Your task to perform on an android device: turn off data saver in the chrome app Image 0: 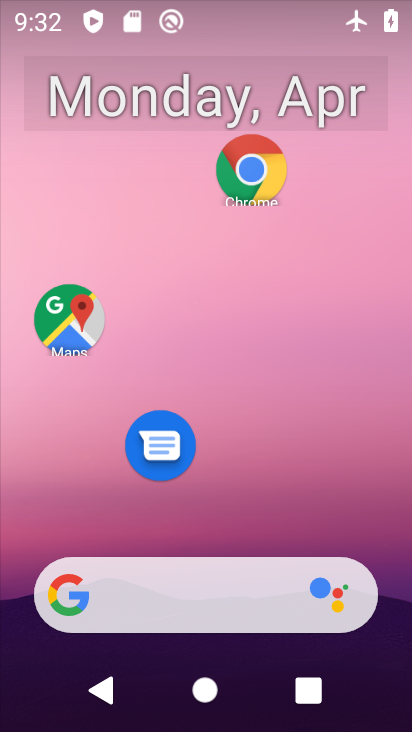
Step 0: click (241, 169)
Your task to perform on an android device: turn off data saver in the chrome app Image 1: 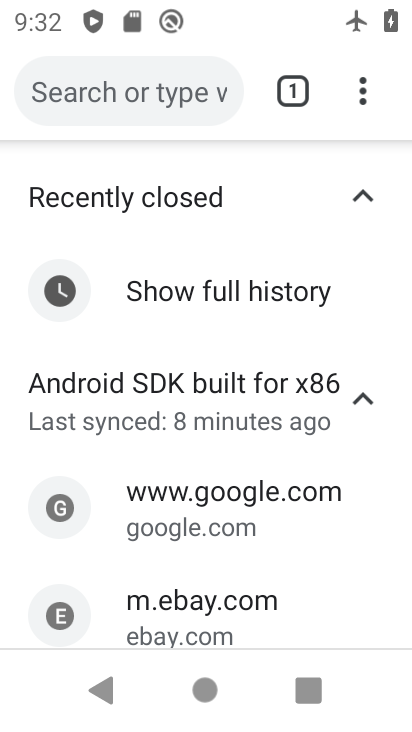
Step 1: click (366, 99)
Your task to perform on an android device: turn off data saver in the chrome app Image 2: 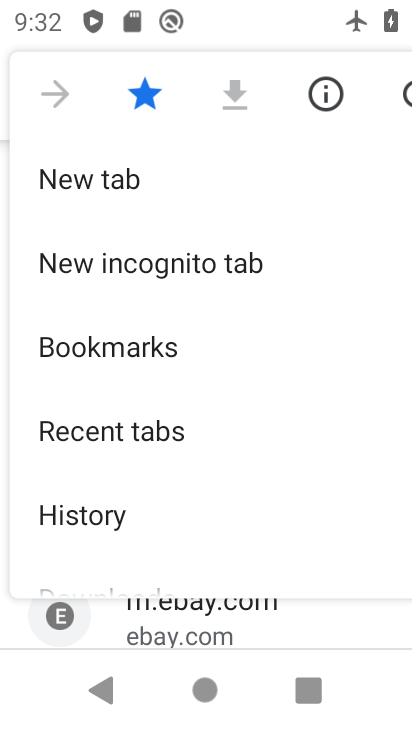
Step 2: drag from (205, 578) to (207, 259)
Your task to perform on an android device: turn off data saver in the chrome app Image 3: 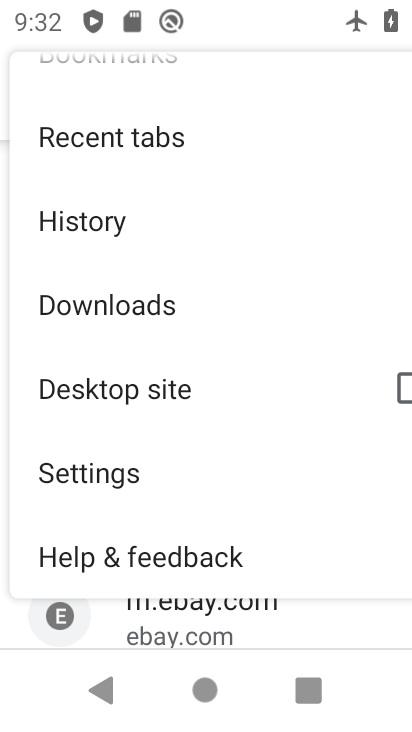
Step 3: click (127, 479)
Your task to perform on an android device: turn off data saver in the chrome app Image 4: 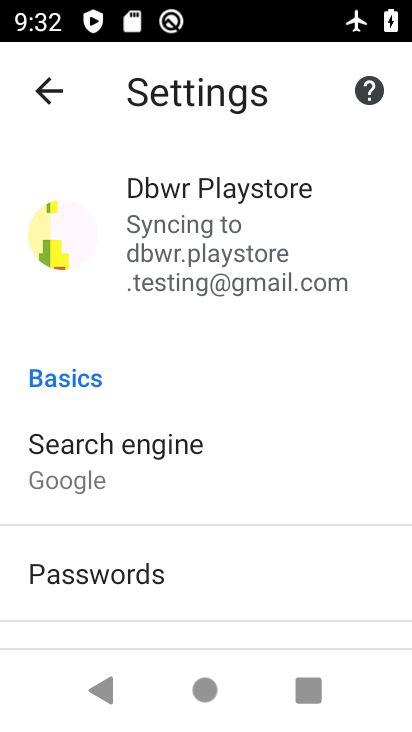
Step 4: drag from (193, 553) to (212, 278)
Your task to perform on an android device: turn off data saver in the chrome app Image 5: 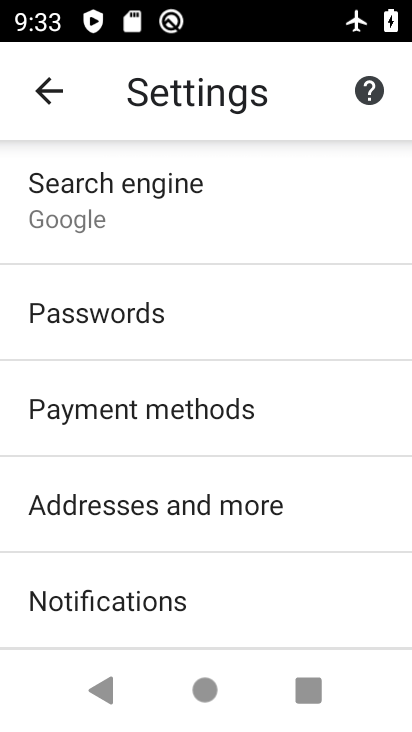
Step 5: drag from (228, 536) to (223, 284)
Your task to perform on an android device: turn off data saver in the chrome app Image 6: 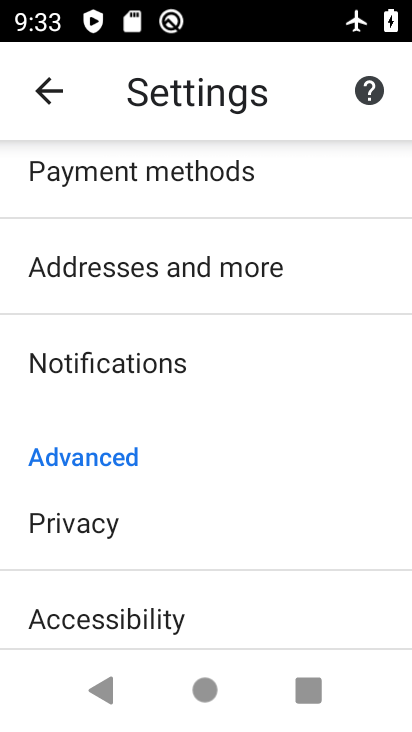
Step 6: drag from (224, 539) to (240, 226)
Your task to perform on an android device: turn off data saver in the chrome app Image 7: 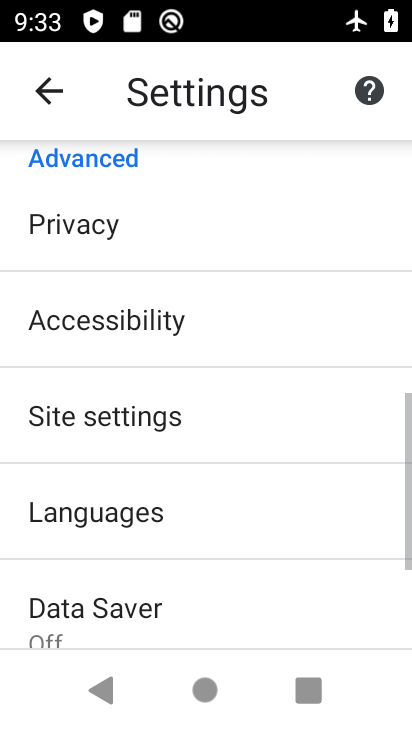
Step 7: click (151, 596)
Your task to perform on an android device: turn off data saver in the chrome app Image 8: 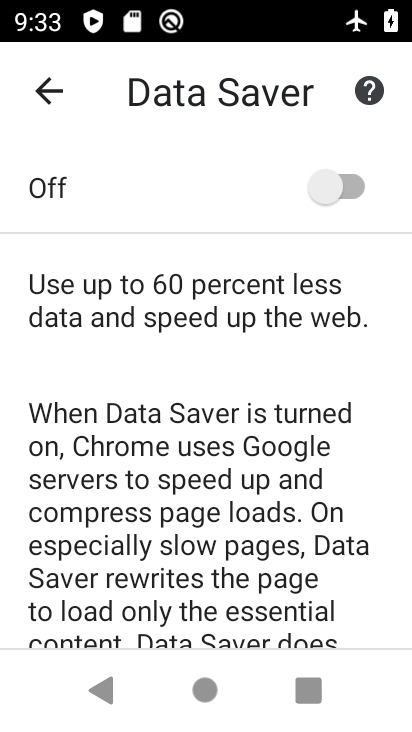
Step 8: task complete